Your task to perform on an android device: What's the weather? Image 0: 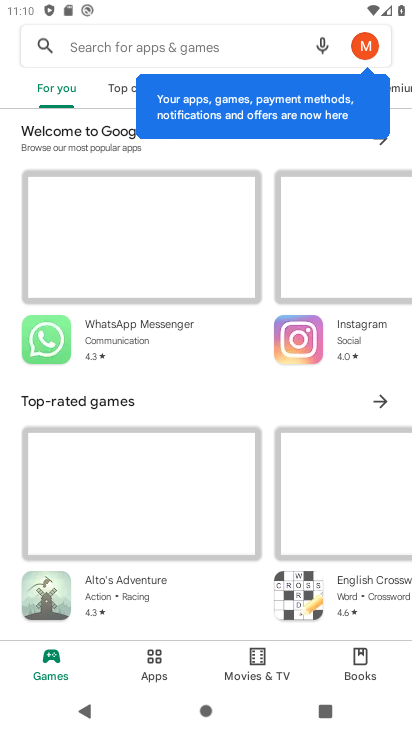
Step 0: press home button
Your task to perform on an android device: What's the weather? Image 1: 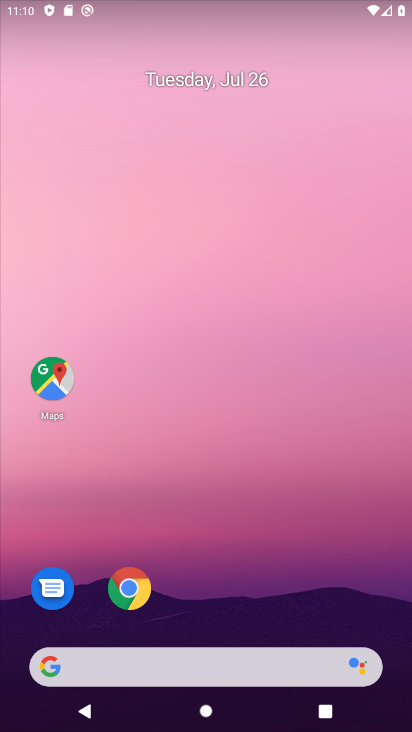
Step 1: click (153, 661)
Your task to perform on an android device: What's the weather? Image 2: 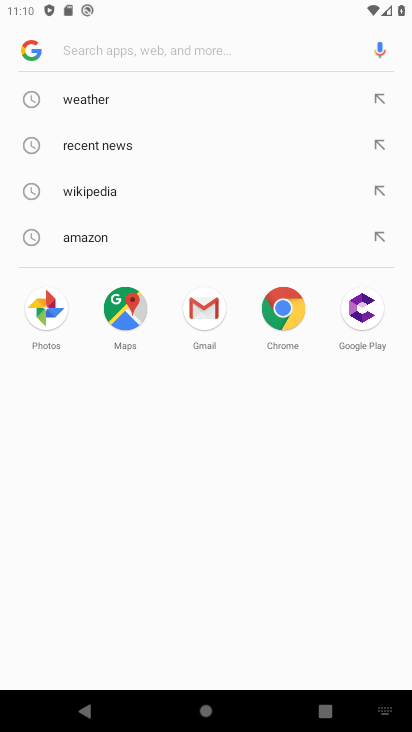
Step 2: type "What's the weather?"
Your task to perform on an android device: What's the weather? Image 3: 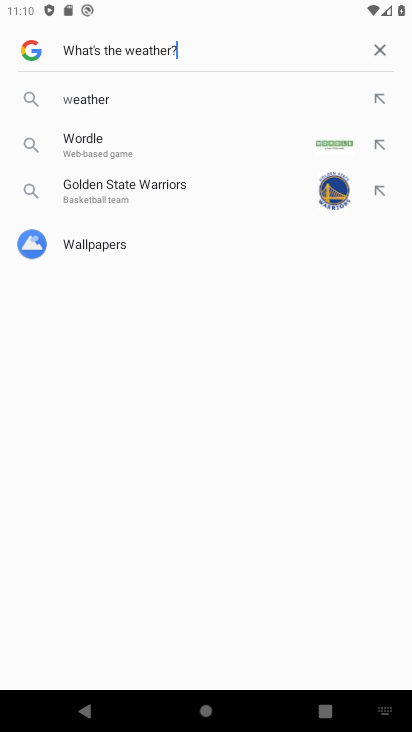
Step 3: type ""
Your task to perform on an android device: What's the weather? Image 4: 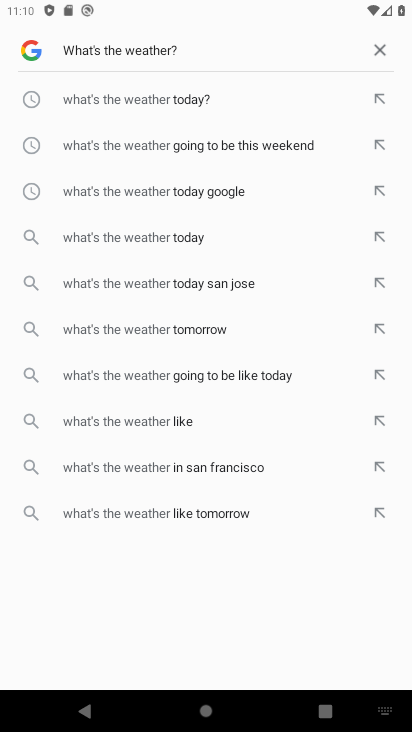
Step 4: type ""
Your task to perform on an android device: What's the weather? Image 5: 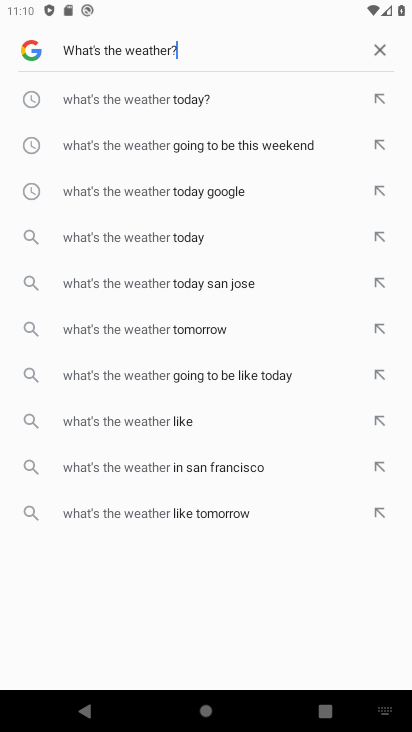
Step 5: type ""
Your task to perform on an android device: What's the weather? Image 6: 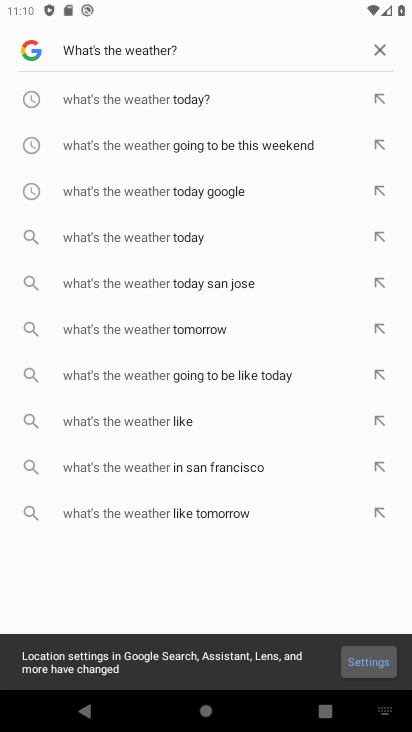
Step 6: task complete